Your task to perform on an android device: Go to Google Image 0: 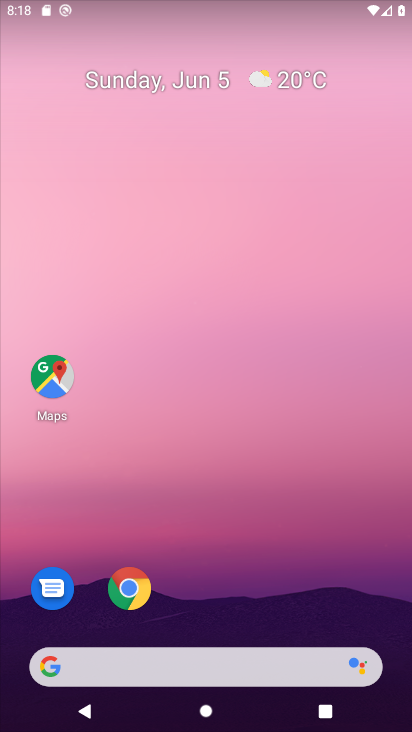
Step 0: drag from (284, 591) to (290, 49)
Your task to perform on an android device: Go to Google Image 1: 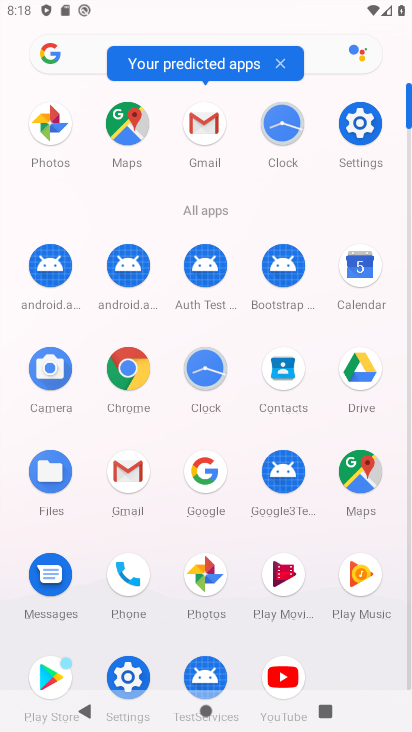
Step 1: click (191, 475)
Your task to perform on an android device: Go to Google Image 2: 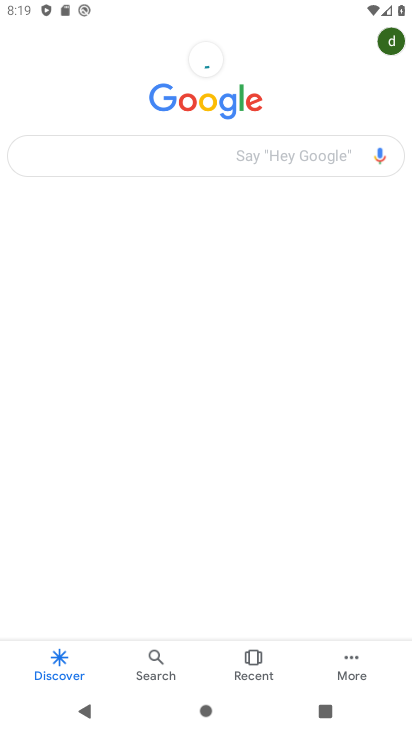
Step 2: task complete